Your task to perform on an android device: open app "Firefox Browser" Image 0: 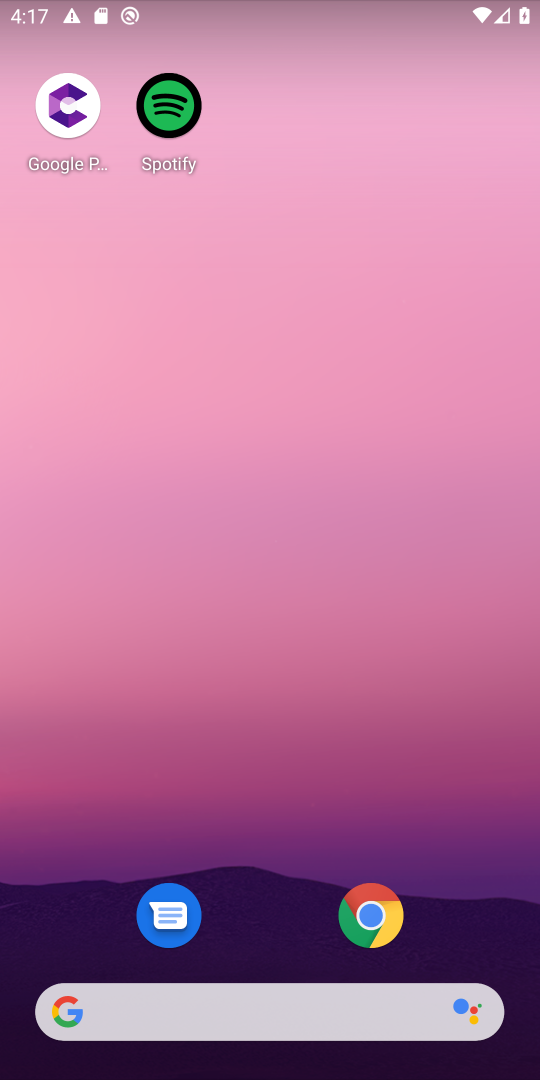
Step 0: drag from (299, 931) to (406, 245)
Your task to perform on an android device: open app "Firefox Browser" Image 1: 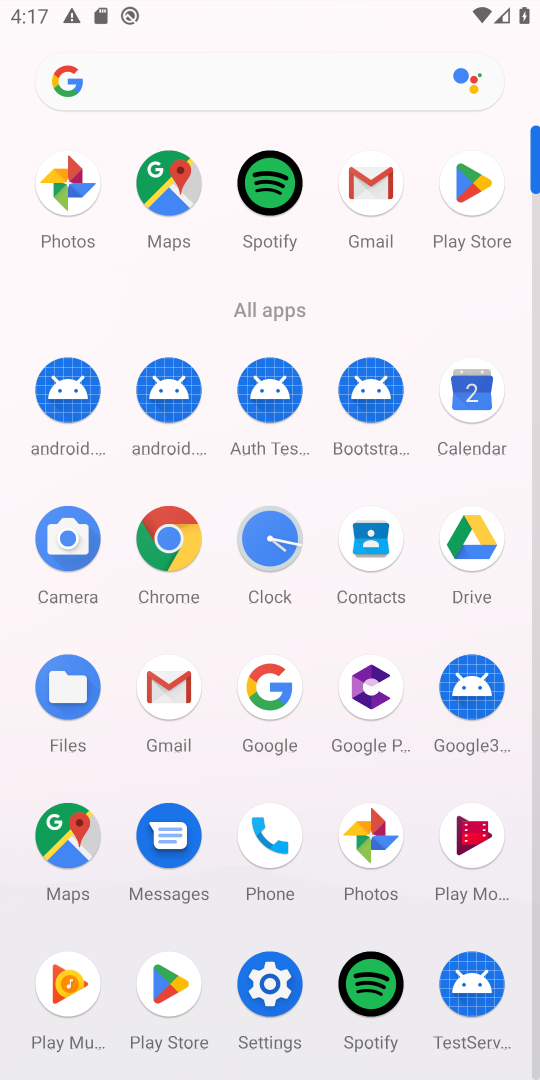
Step 1: click (470, 205)
Your task to perform on an android device: open app "Firefox Browser" Image 2: 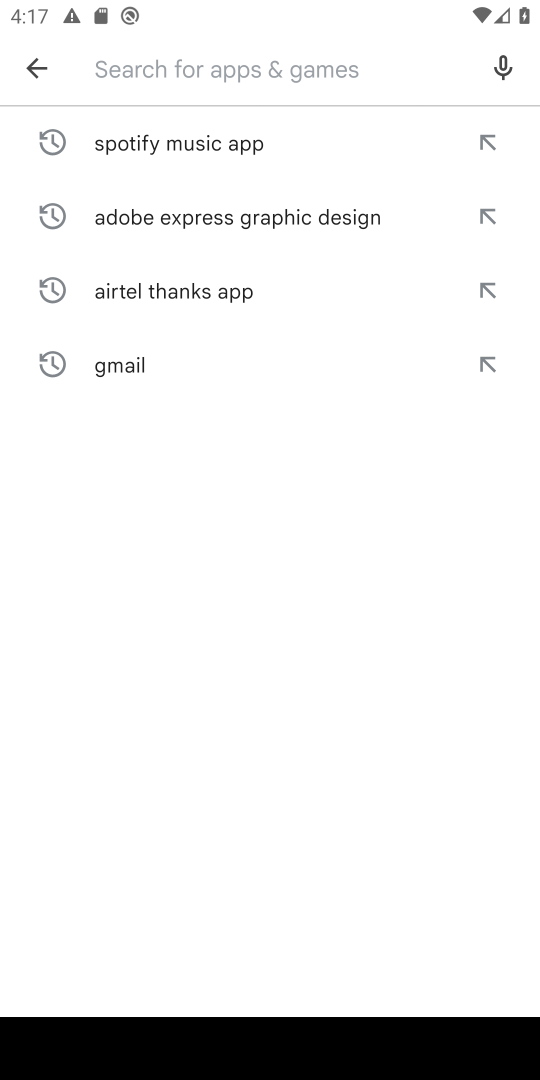
Step 2: click (329, 66)
Your task to perform on an android device: open app "Firefox Browser" Image 3: 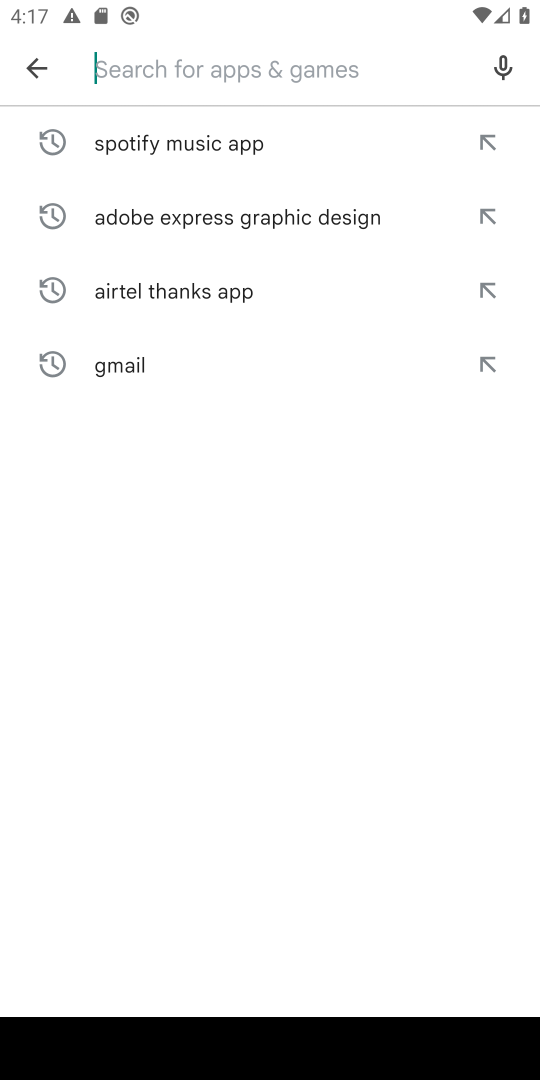
Step 3: type "firefox browser"
Your task to perform on an android device: open app "Firefox Browser" Image 4: 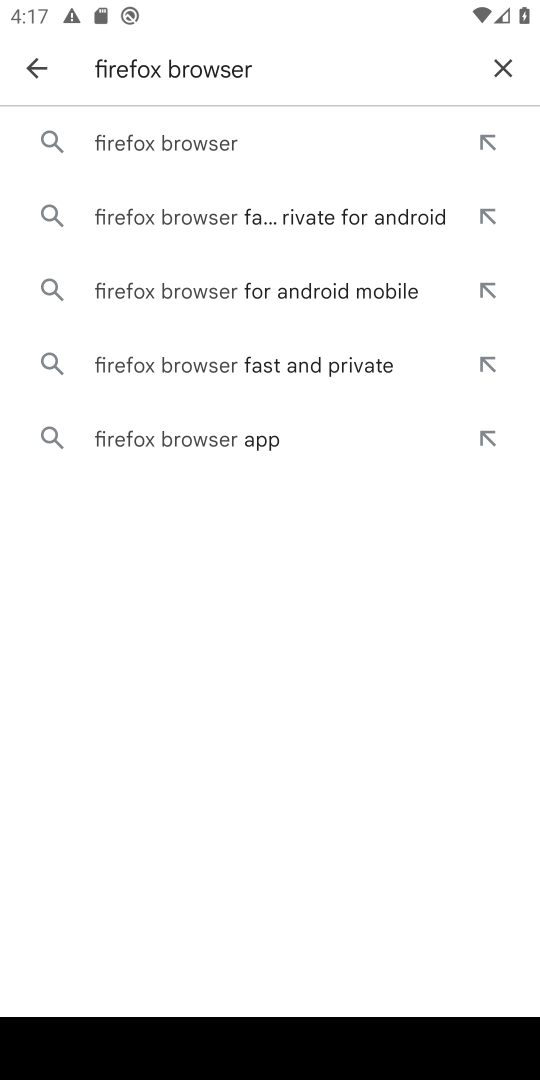
Step 4: click (174, 132)
Your task to perform on an android device: open app "Firefox Browser" Image 5: 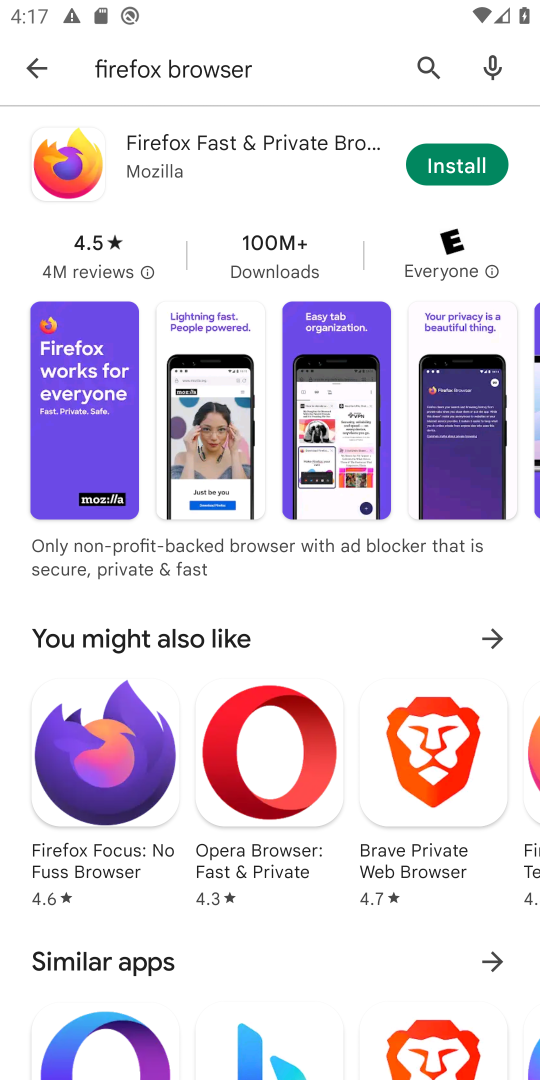
Step 5: click (228, 146)
Your task to perform on an android device: open app "Firefox Browser" Image 6: 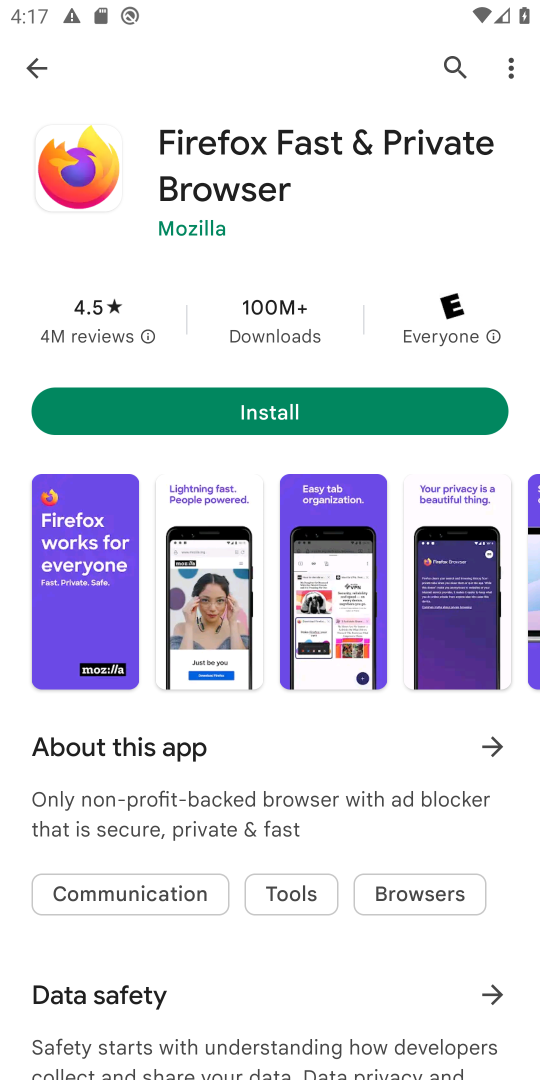
Step 6: task complete